Your task to perform on an android device: find snoozed emails in the gmail app Image 0: 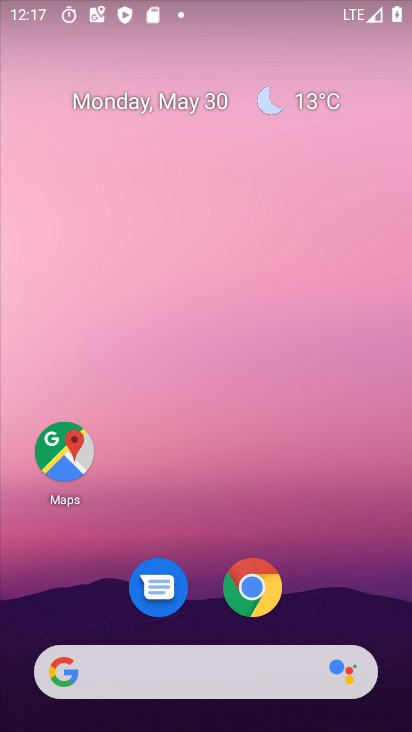
Step 0: drag from (317, 544) to (291, 103)
Your task to perform on an android device: find snoozed emails in the gmail app Image 1: 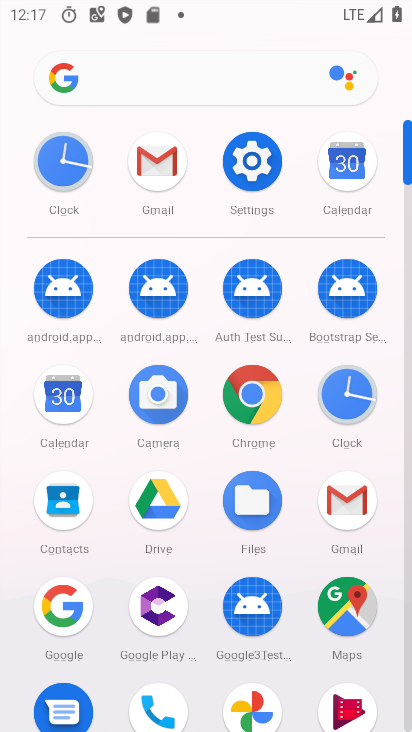
Step 1: click (143, 139)
Your task to perform on an android device: find snoozed emails in the gmail app Image 2: 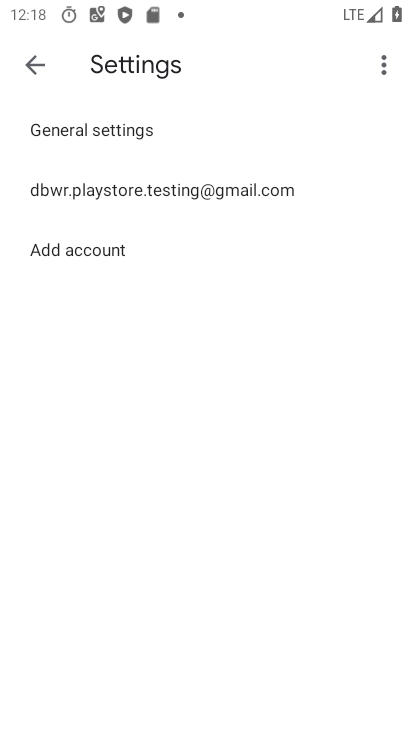
Step 2: press home button
Your task to perform on an android device: find snoozed emails in the gmail app Image 3: 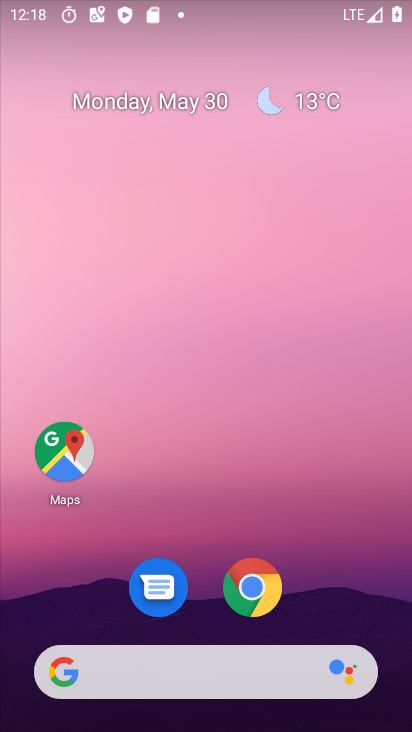
Step 3: drag from (322, 593) to (278, 55)
Your task to perform on an android device: find snoozed emails in the gmail app Image 4: 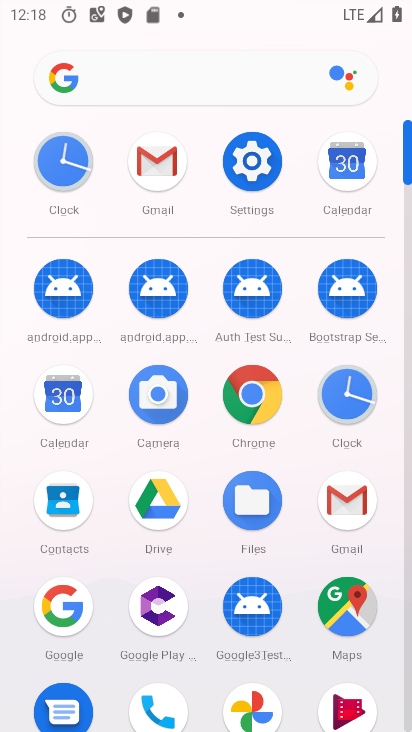
Step 4: click (345, 495)
Your task to perform on an android device: find snoozed emails in the gmail app Image 5: 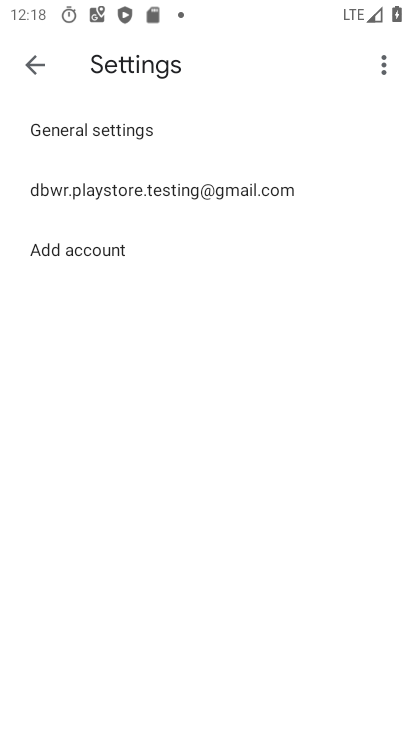
Step 5: click (40, 66)
Your task to perform on an android device: find snoozed emails in the gmail app Image 6: 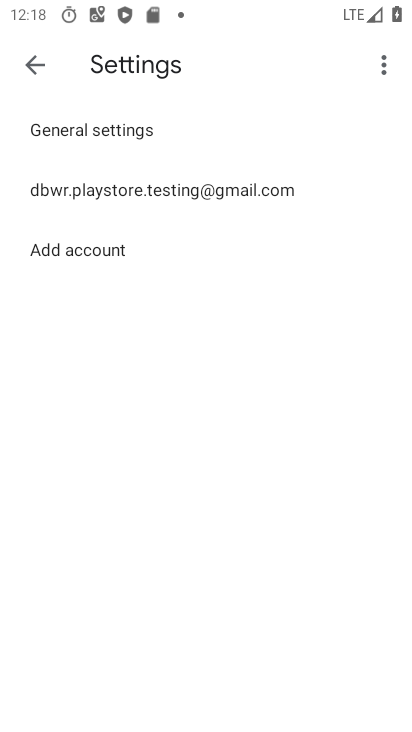
Step 6: click (40, 65)
Your task to perform on an android device: find snoozed emails in the gmail app Image 7: 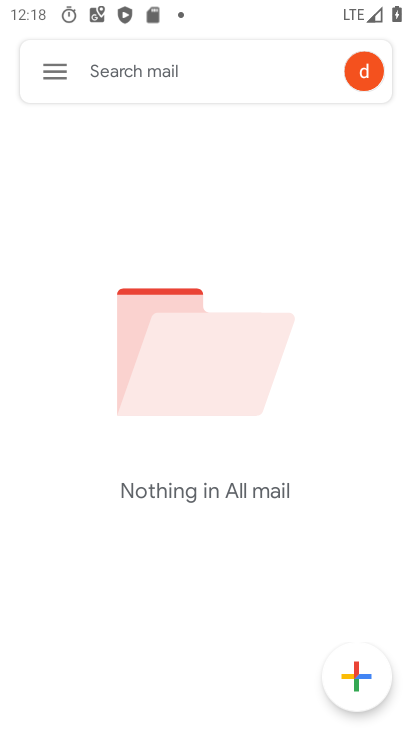
Step 7: click (41, 66)
Your task to perform on an android device: find snoozed emails in the gmail app Image 8: 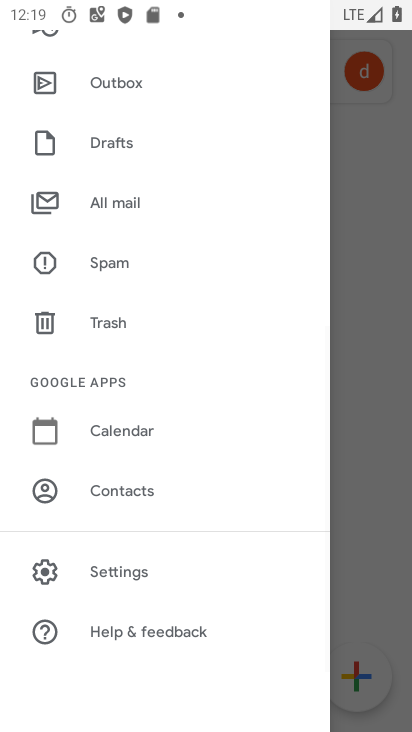
Step 8: drag from (189, 135) to (226, 575)
Your task to perform on an android device: find snoozed emails in the gmail app Image 9: 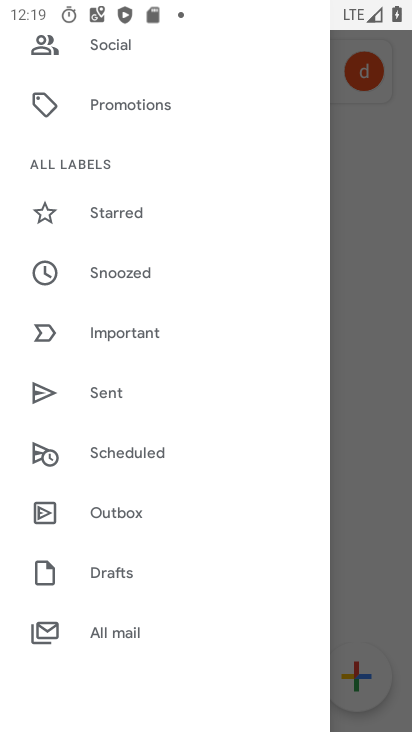
Step 9: click (134, 274)
Your task to perform on an android device: find snoozed emails in the gmail app Image 10: 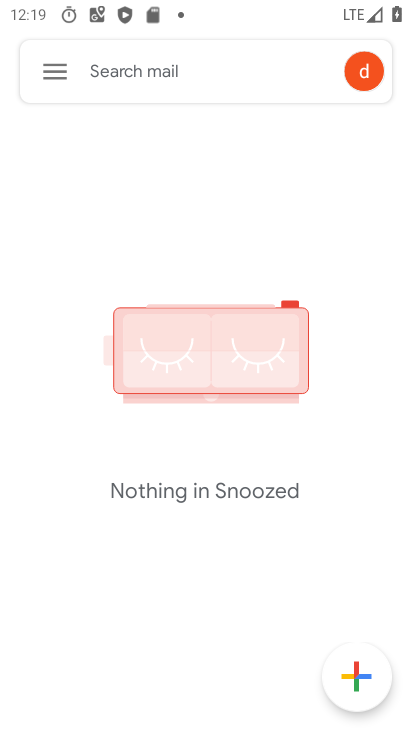
Step 10: task complete